Your task to perform on an android device: Go to ESPN.com Image 0: 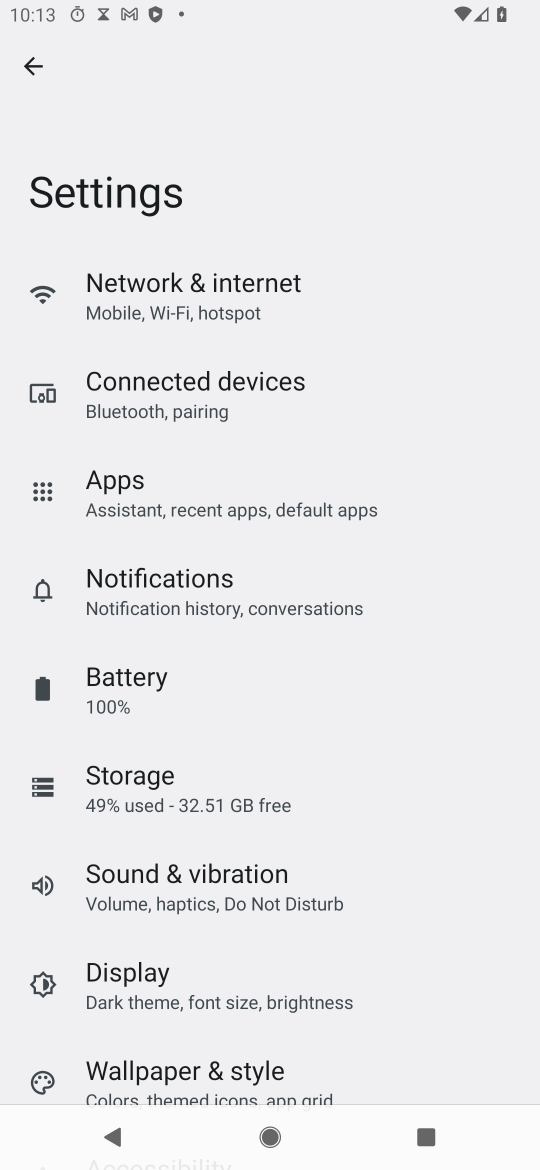
Step 0: press back button
Your task to perform on an android device: Go to ESPN.com Image 1: 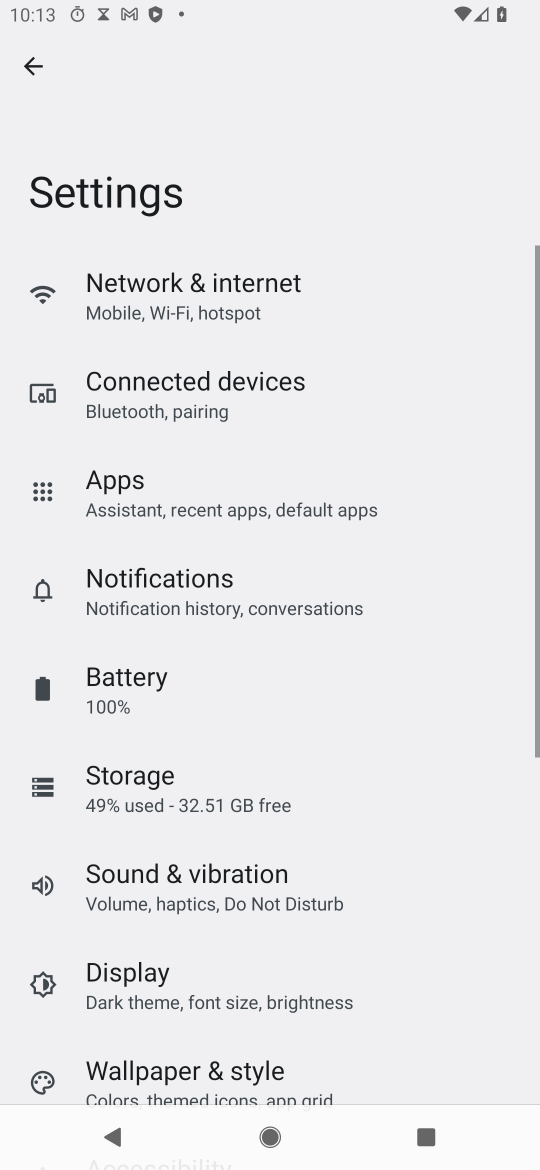
Step 1: press home button
Your task to perform on an android device: Go to ESPN.com Image 2: 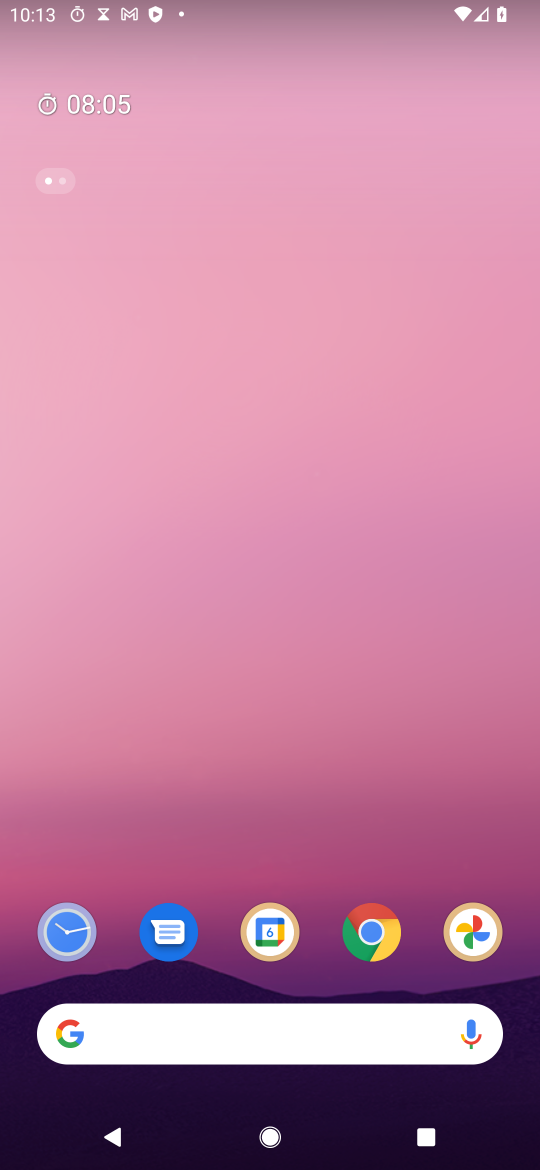
Step 2: press home button
Your task to perform on an android device: Go to ESPN.com Image 3: 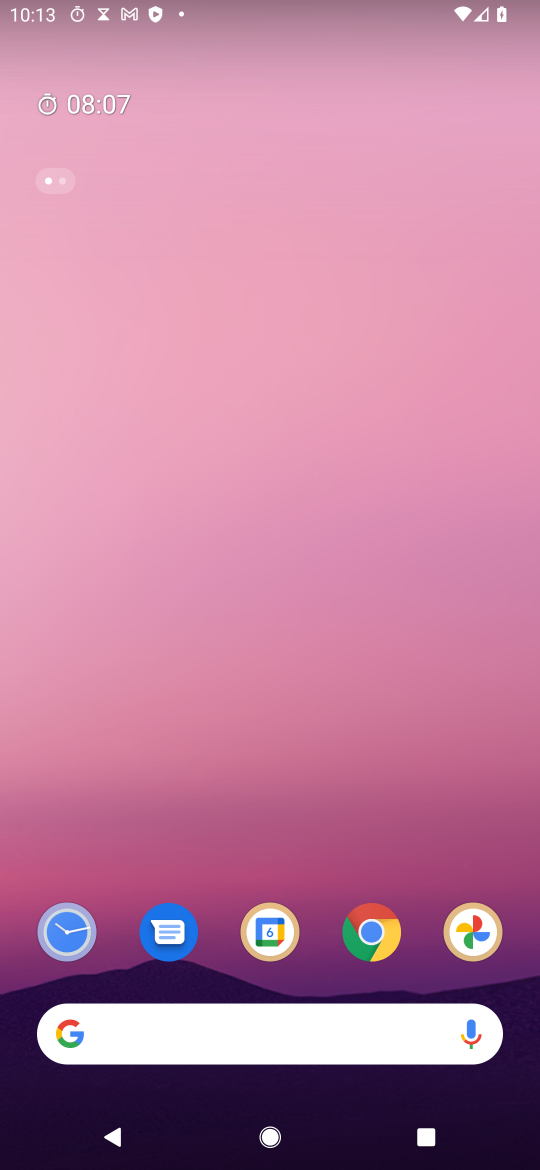
Step 3: click (393, 952)
Your task to perform on an android device: Go to ESPN.com Image 4: 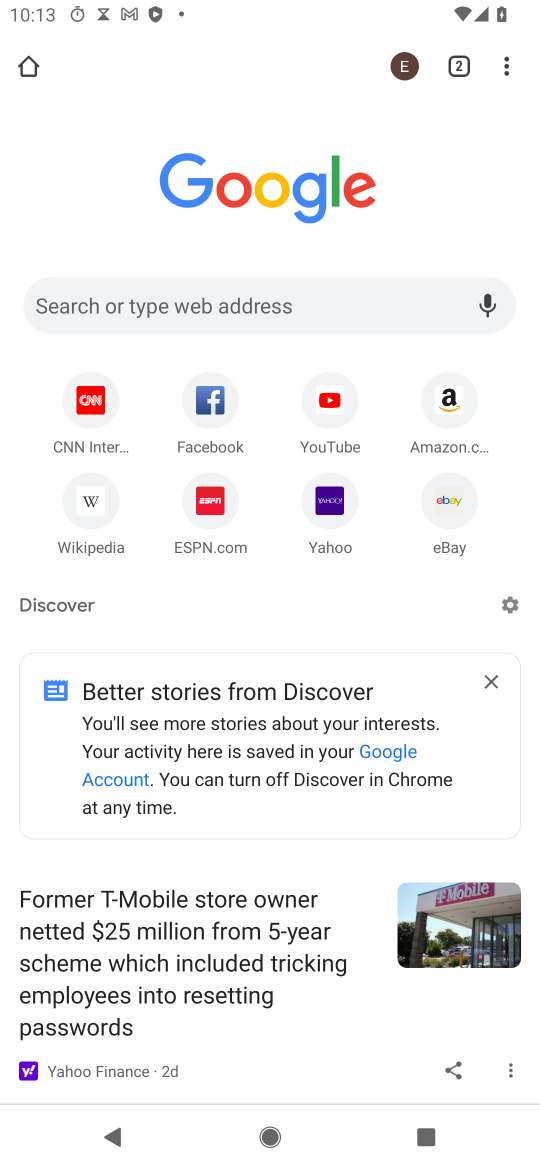
Step 4: click (225, 504)
Your task to perform on an android device: Go to ESPN.com Image 5: 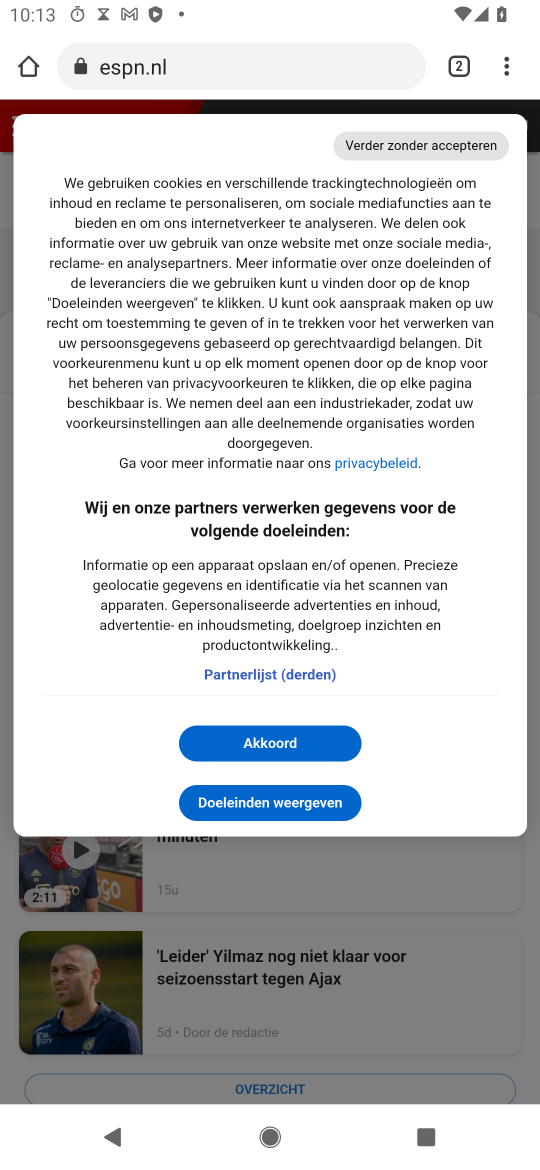
Step 5: task complete